Your task to perform on an android device: Show me productivity apps on the Play Store Image 0: 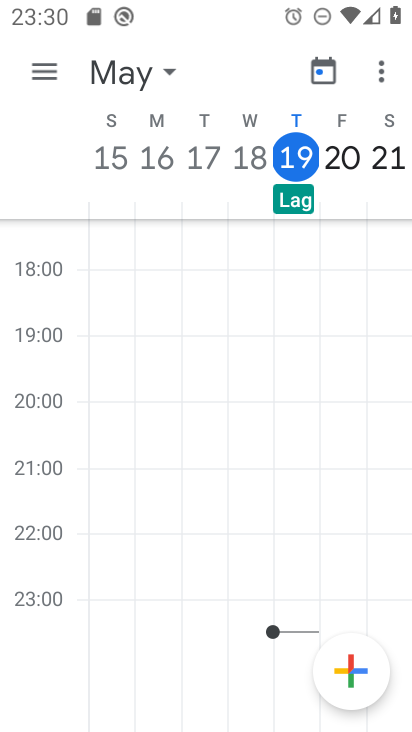
Step 0: press home button
Your task to perform on an android device: Show me productivity apps on the Play Store Image 1: 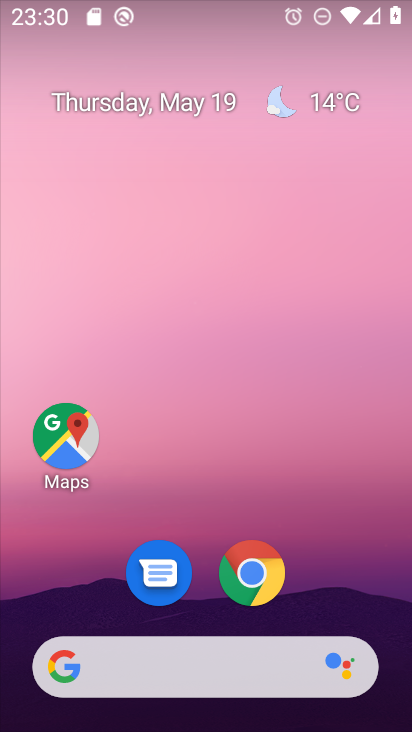
Step 1: drag from (328, 495) to (348, 87)
Your task to perform on an android device: Show me productivity apps on the Play Store Image 2: 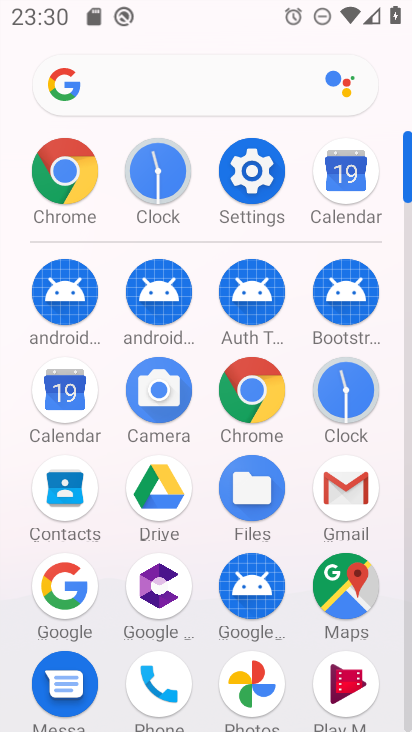
Step 2: drag from (301, 607) to (367, 193)
Your task to perform on an android device: Show me productivity apps on the Play Store Image 3: 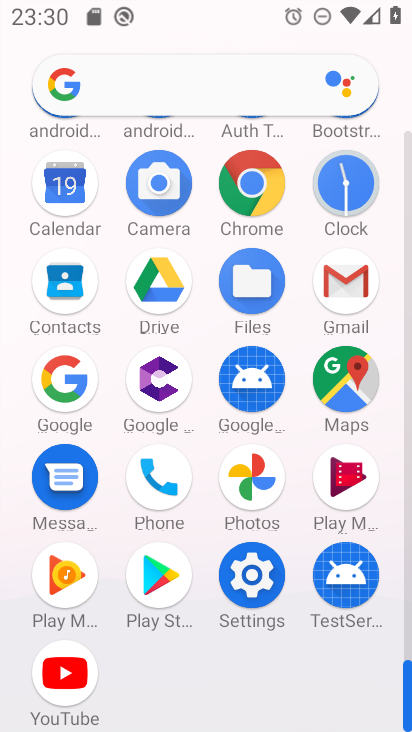
Step 3: click (171, 560)
Your task to perform on an android device: Show me productivity apps on the Play Store Image 4: 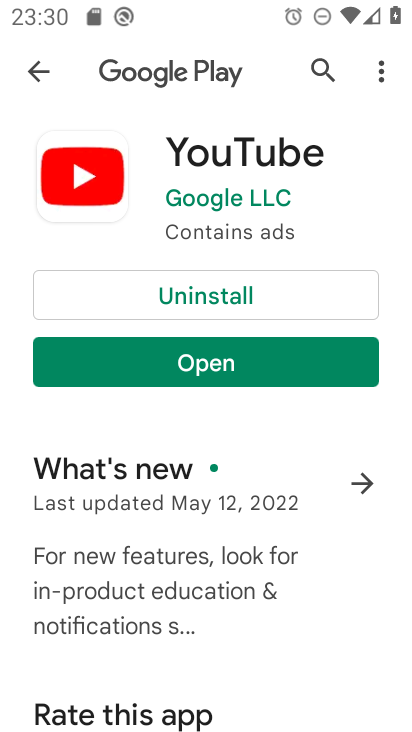
Step 4: click (49, 73)
Your task to perform on an android device: Show me productivity apps on the Play Store Image 5: 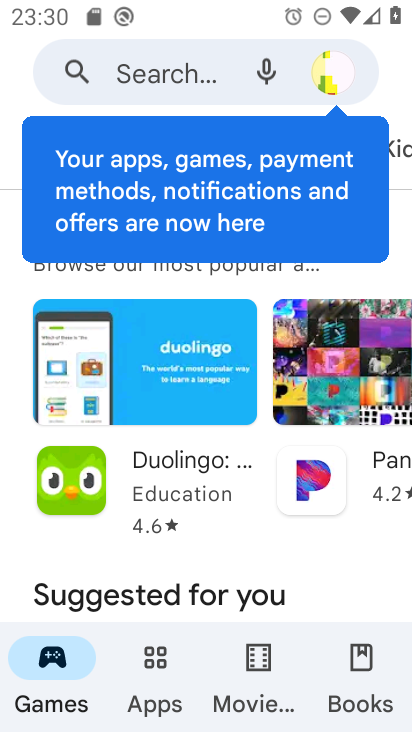
Step 5: drag from (220, 532) to (340, 142)
Your task to perform on an android device: Show me productivity apps on the Play Store Image 6: 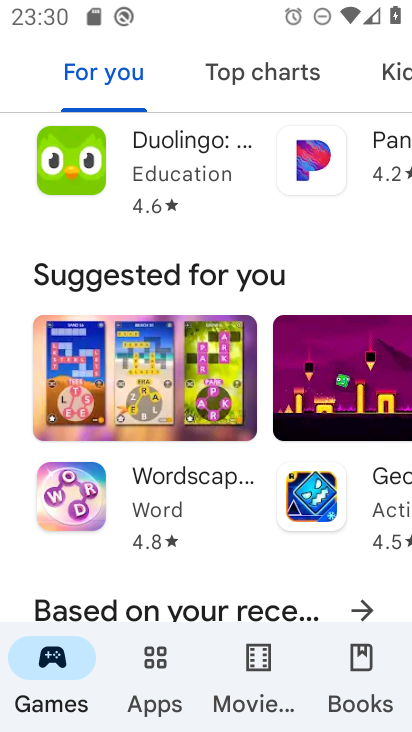
Step 6: drag from (222, 529) to (298, 126)
Your task to perform on an android device: Show me productivity apps on the Play Store Image 7: 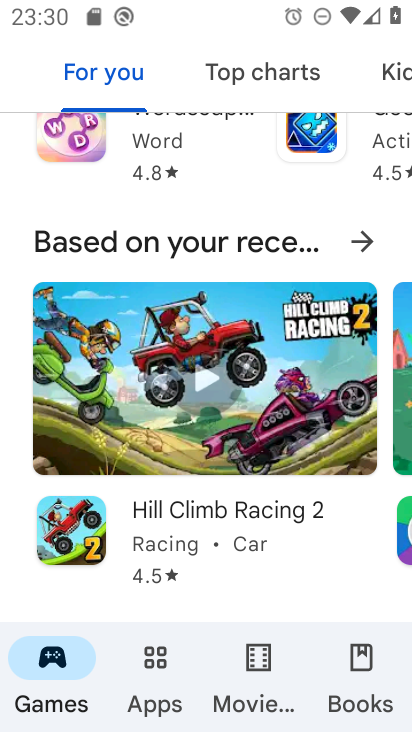
Step 7: drag from (230, 573) to (326, 163)
Your task to perform on an android device: Show me productivity apps on the Play Store Image 8: 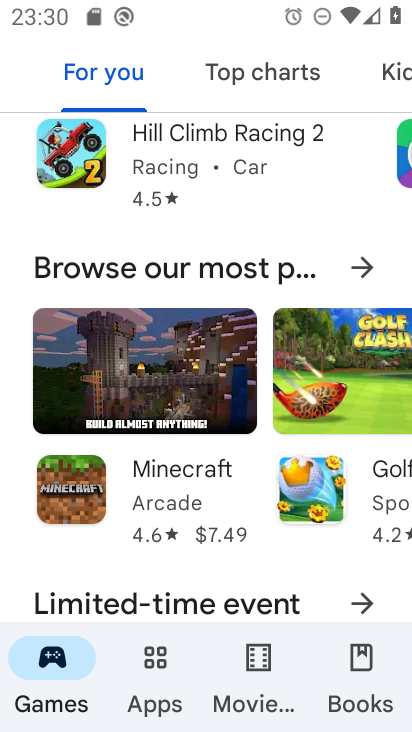
Step 8: drag from (197, 548) to (320, 133)
Your task to perform on an android device: Show me productivity apps on the Play Store Image 9: 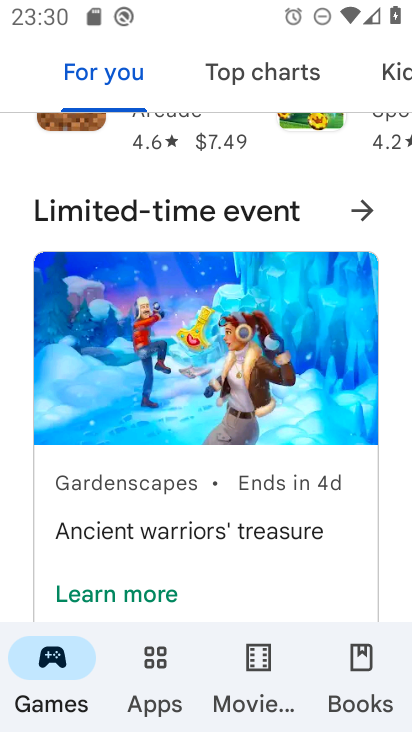
Step 9: drag from (209, 584) to (308, 161)
Your task to perform on an android device: Show me productivity apps on the Play Store Image 10: 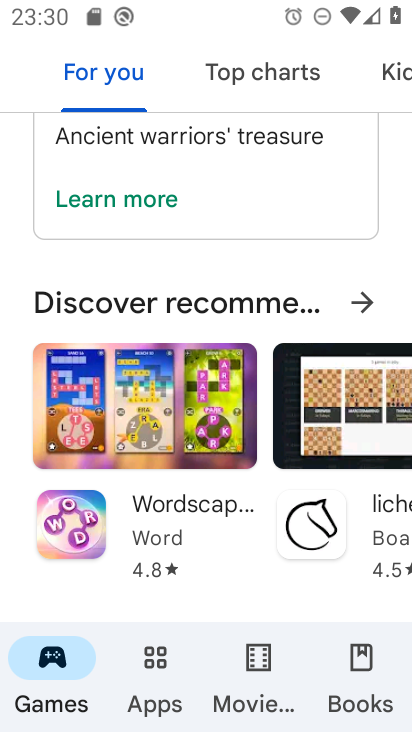
Step 10: drag from (224, 530) to (367, 153)
Your task to perform on an android device: Show me productivity apps on the Play Store Image 11: 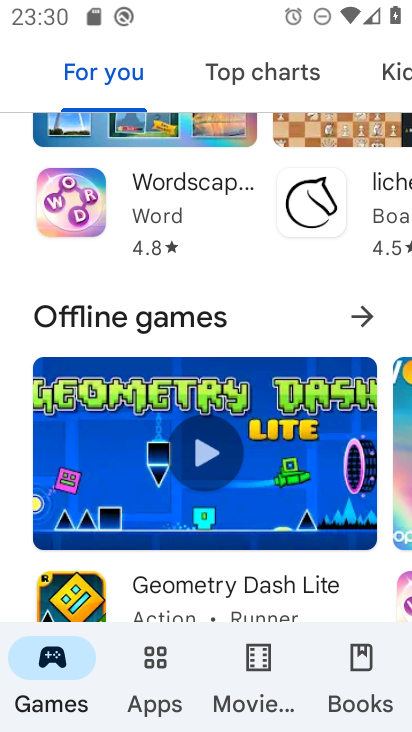
Step 11: drag from (209, 580) to (328, 194)
Your task to perform on an android device: Show me productivity apps on the Play Store Image 12: 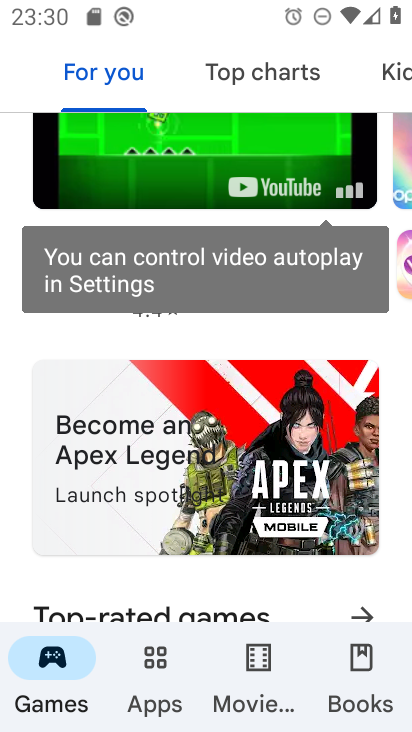
Step 12: drag from (217, 583) to (356, 178)
Your task to perform on an android device: Show me productivity apps on the Play Store Image 13: 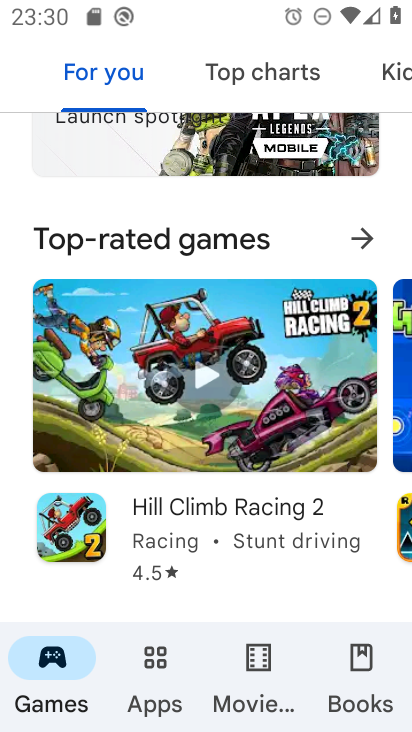
Step 13: drag from (225, 543) to (357, 163)
Your task to perform on an android device: Show me productivity apps on the Play Store Image 14: 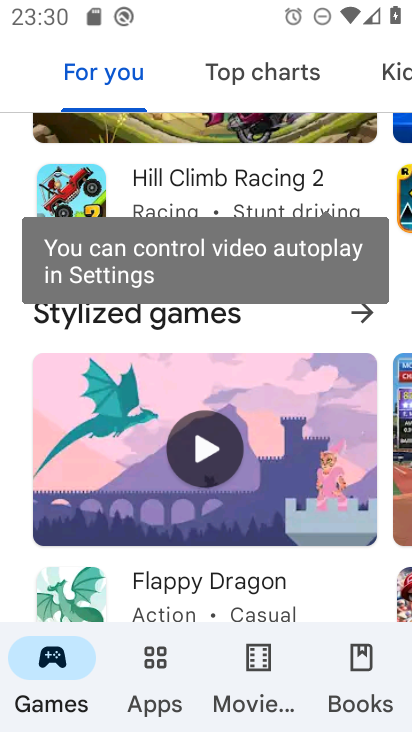
Step 14: drag from (219, 594) to (329, 283)
Your task to perform on an android device: Show me productivity apps on the Play Store Image 15: 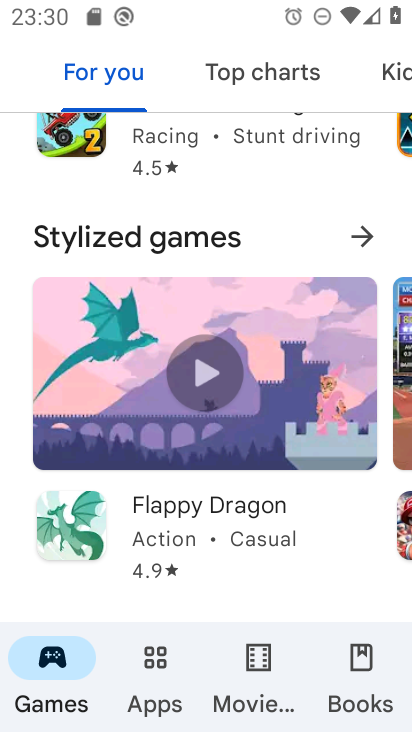
Step 15: click (340, 211)
Your task to perform on an android device: Show me productivity apps on the Play Store Image 16: 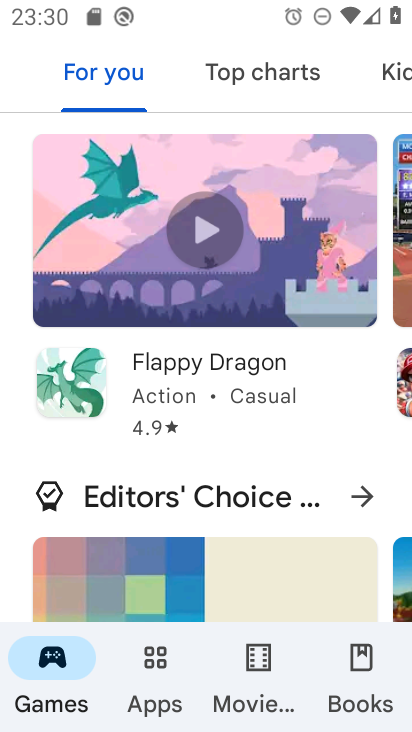
Step 16: drag from (252, 546) to (371, 175)
Your task to perform on an android device: Show me productivity apps on the Play Store Image 17: 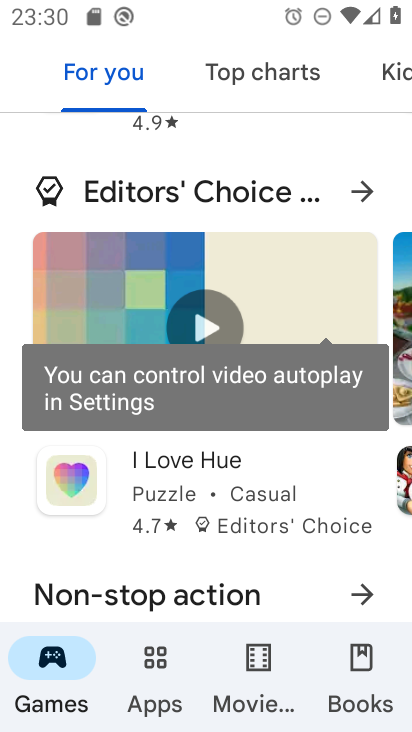
Step 17: drag from (257, 529) to (370, 197)
Your task to perform on an android device: Show me productivity apps on the Play Store Image 18: 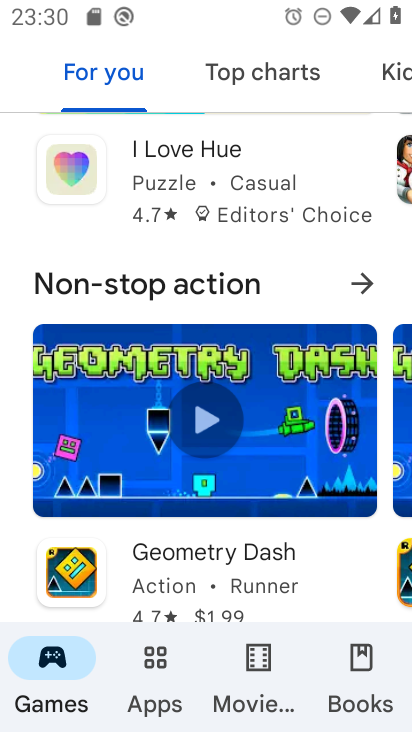
Step 18: drag from (284, 515) to (376, 117)
Your task to perform on an android device: Show me productivity apps on the Play Store Image 19: 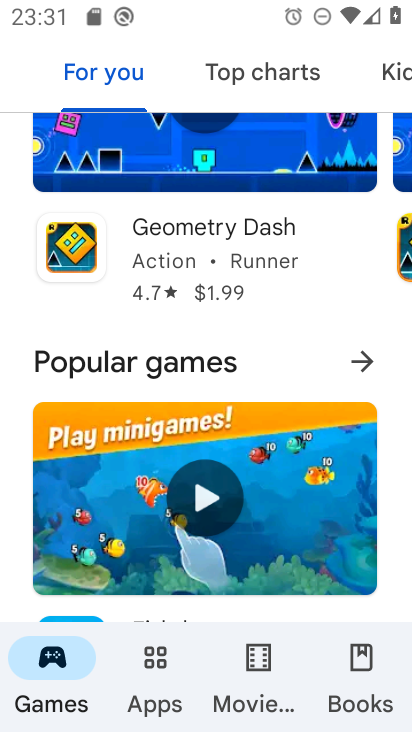
Step 19: drag from (233, 570) to (353, 121)
Your task to perform on an android device: Show me productivity apps on the Play Store Image 20: 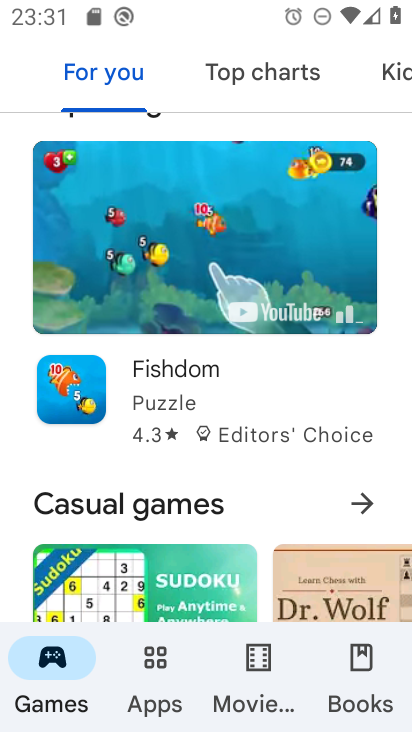
Step 20: drag from (237, 509) to (396, 200)
Your task to perform on an android device: Show me productivity apps on the Play Store Image 21: 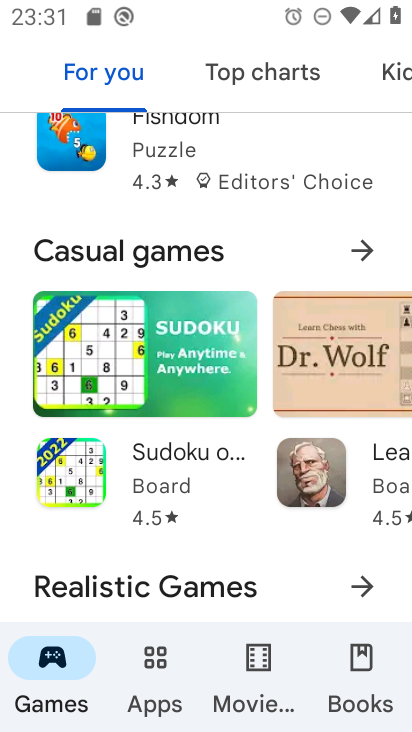
Step 21: drag from (248, 546) to (412, 268)
Your task to perform on an android device: Show me productivity apps on the Play Store Image 22: 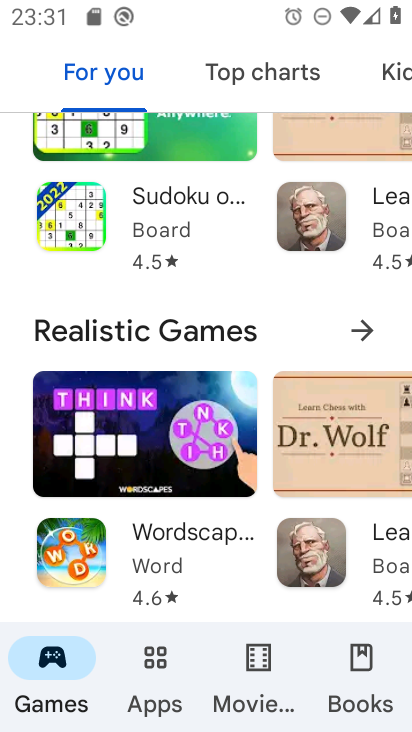
Step 22: drag from (243, 588) to (388, 155)
Your task to perform on an android device: Show me productivity apps on the Play Store Image 23: 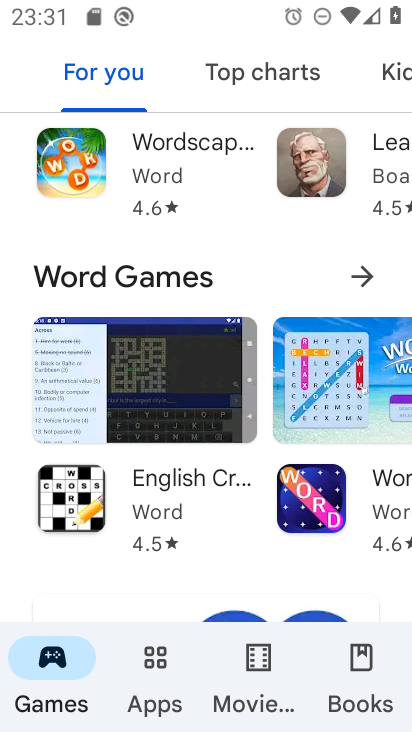
Step 23: drag from (213, 552) to (354, 262)
Your task to perform on an android device: Show me productivity apps on the Play Store Image 24: 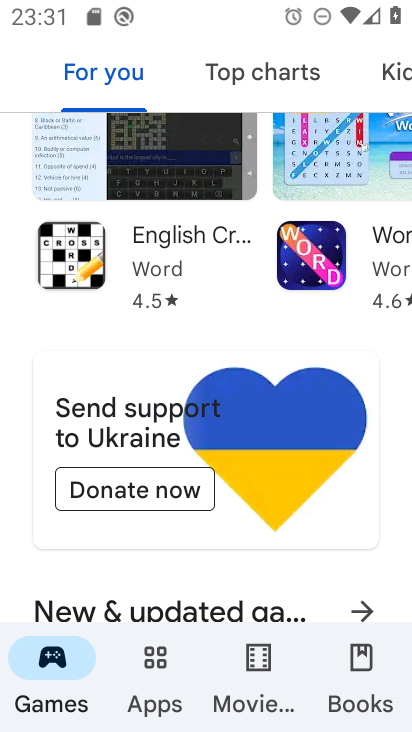
Step 24: drag from (227, 602) to (412, 298)
Your task to perform on an android device: Show me productivity apps on the Play Store Image 25: 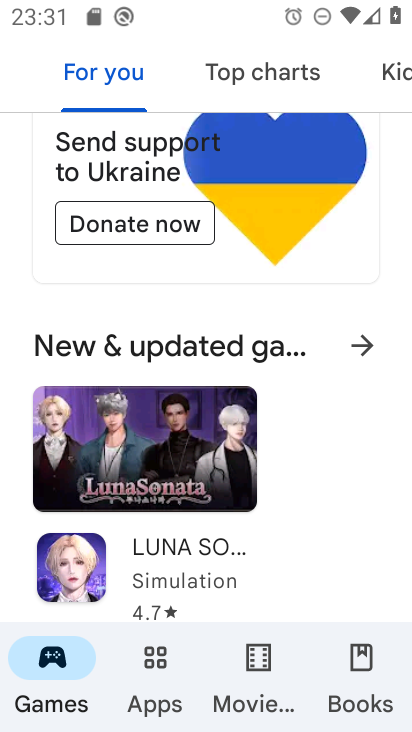
Step 25: drag from (275, 558) to (400, 270)
Your task to perform on an android device: Show me productivity apps on the Play Store Image 26: 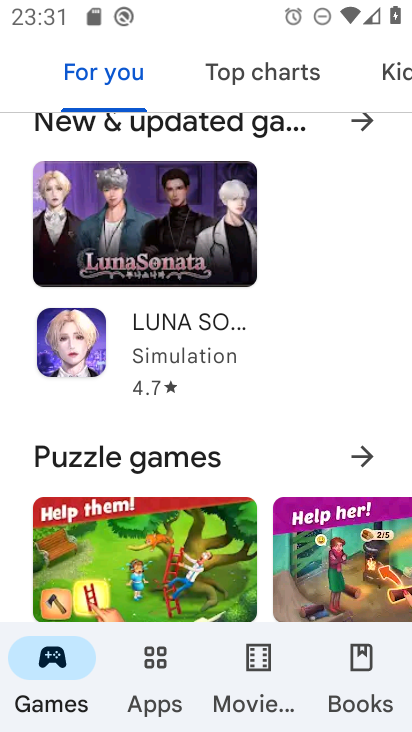
Step 26: click (403, 251)
Your task to perform on an android device: Show me productivity apps on the Play Store Image 27: 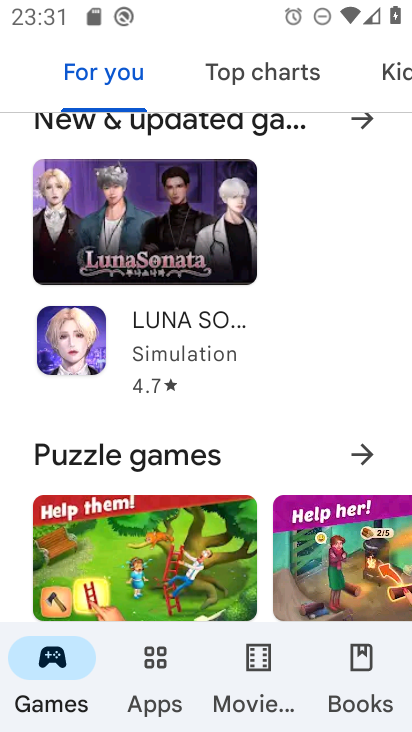
Step 27: drag from (215, 575) to (409, 204)
Your task to perform on an android device: Show me productivity apps on the Play Store Image 28: 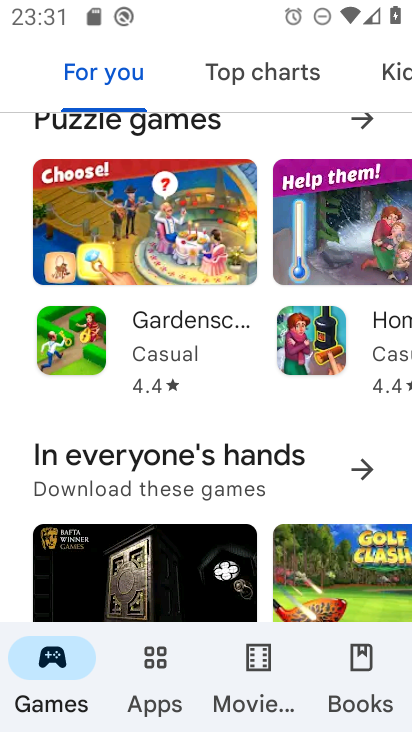
Step 28: drag from (214, 531) to (388, 227)
Your task to perform on an android device: Show me productivity apps on the Play Store Image 29: 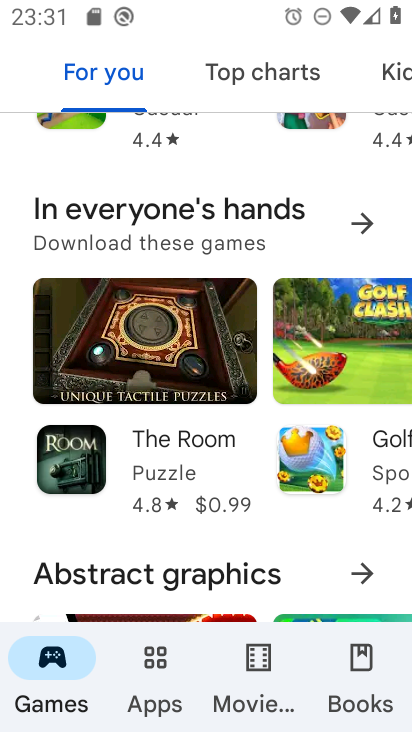
Step 29: drag from (181, 594) to (379, 248)
Your task to perform on an android device: Show me productivity apps on the Play Store Image 30: 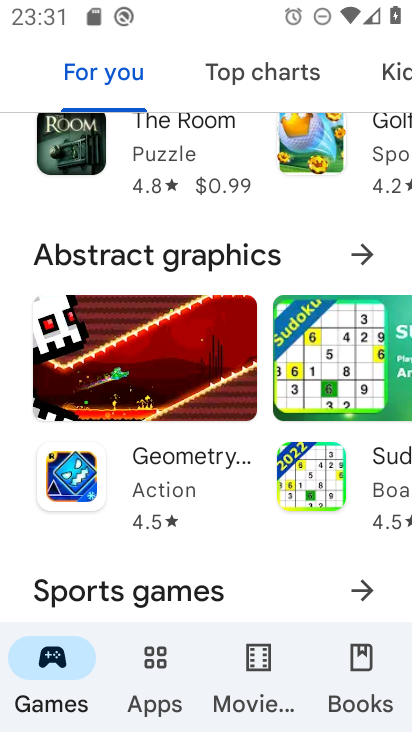
Step 30: drag from (172, 568) to (354, 326)
Your task to perform on an android device: Show me productivity apps on the Play Store Image 31: 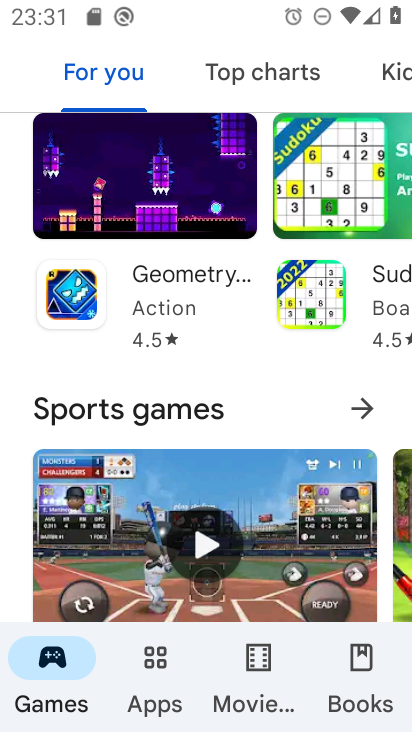
Step 31: drag from (218, 616) to (387, 351)
Your task to perform on an android device: Show me productivity apps on the Play Store Image 32: 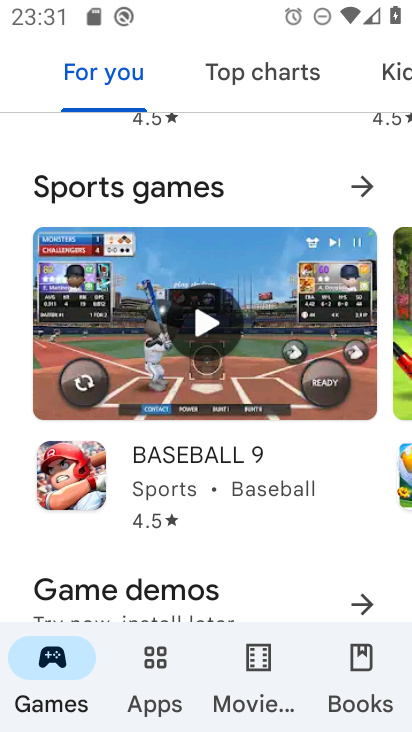
Step 32: drag from (192, 553) to (375, 254)
Your task to perform on an android device: Show me productivity apps on the Play Store Image 33: 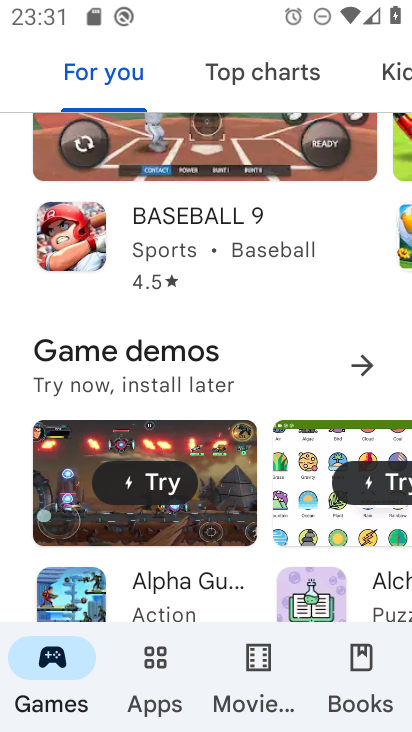
Step 33: drag from (291, 417) to (350, 283)
Your task to perform on an android device: Show me productivity apps on the Play Store Image 34: 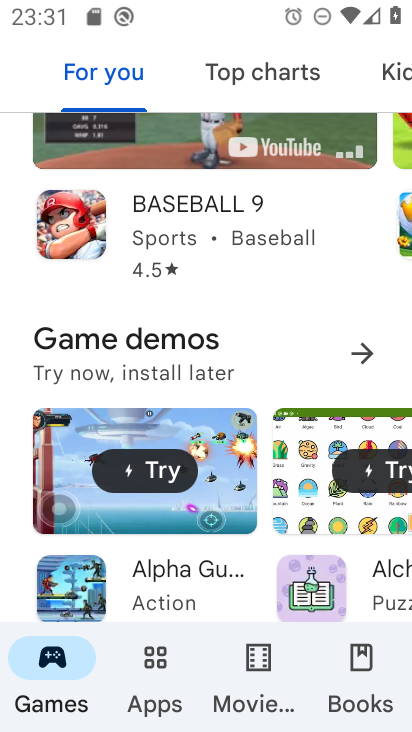
Step 34: drag from (259, 517) to (409, 174)
Your task to perform on an android device: Show me productivity apps on the Play Store Image 35: 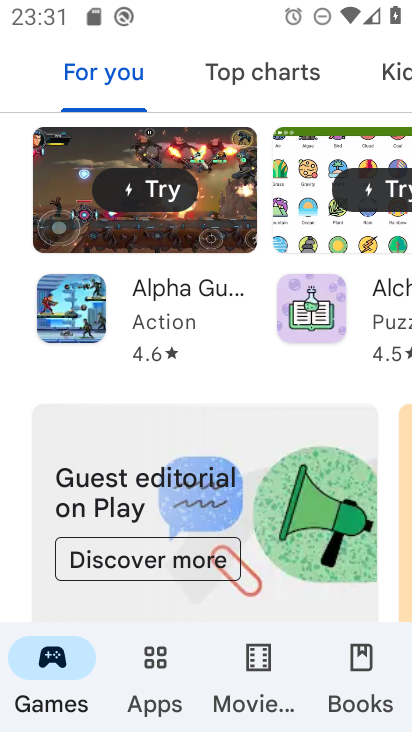
Step 35: drag from (166, 512) to (323, 254)
Your task to perform on an android device: Show me productivity apps on the Play Store Image 36: 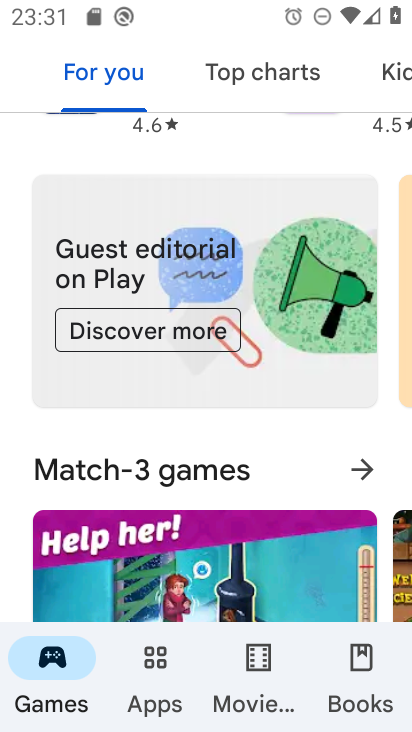
Step 36: drag from (195, 504) to (371, 153)
Your task to perform on an android device: Show me productivity apps on the Play Store Image 37: 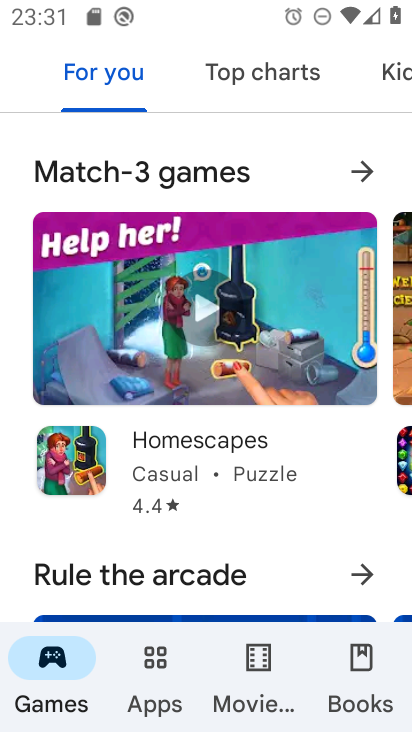
Step 37: drag from (229, 520) to (379, 182)
Your task to perform on an android device: Show me productivity apps on the Play Store Image 38: 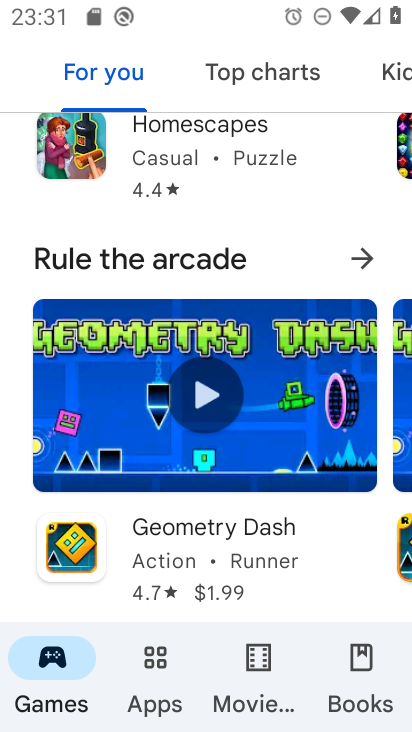
Step 38: drag from (163, 513) to (397, 189)
Your task to perform on an android device: Show me productivity apps on the Play Store Image 39: 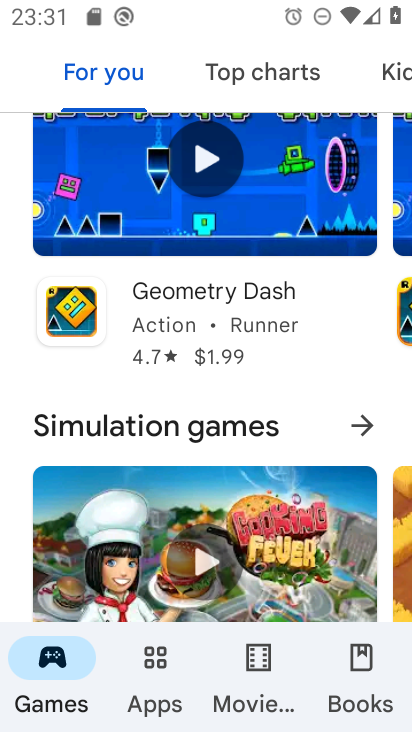
Step 39: drag from (195, 497) to (382, 186)
Your task to perform on an android device: Show me productivity apps on the Play Store Image 40: 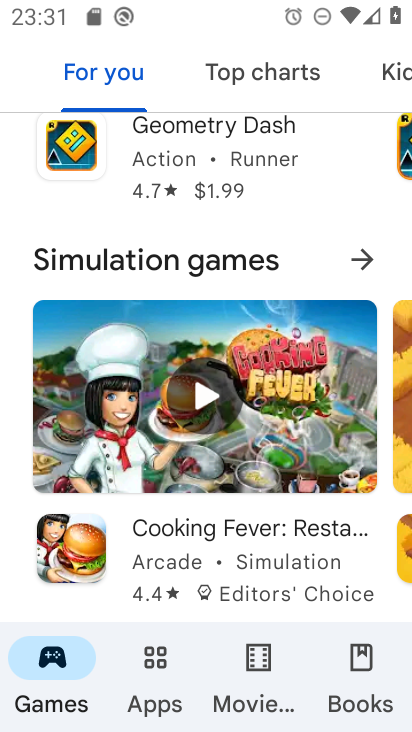
Step 40: drag from (165, 553) to (372, 226)
Your task to perform on an android device: Show me productivity apps on the Play Store Image 41: 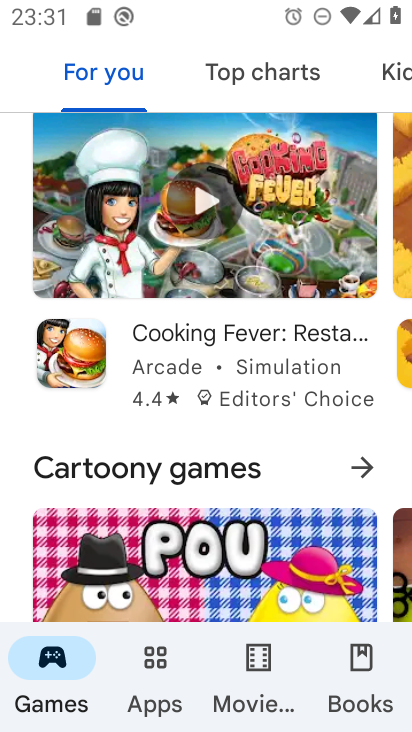
Step 41: drag from (161, 594) to (323, 181)
Your task to perform on an android device: Show me productivity apps on the Play Store Image 42: 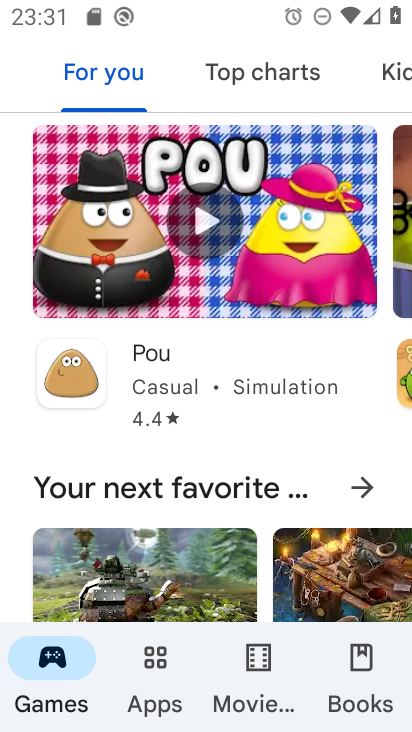
Step 42: drag from (148, 548) to (303, 172)
Your task to perform on an android device: Show me productivity apps on the Play Store Image 43: 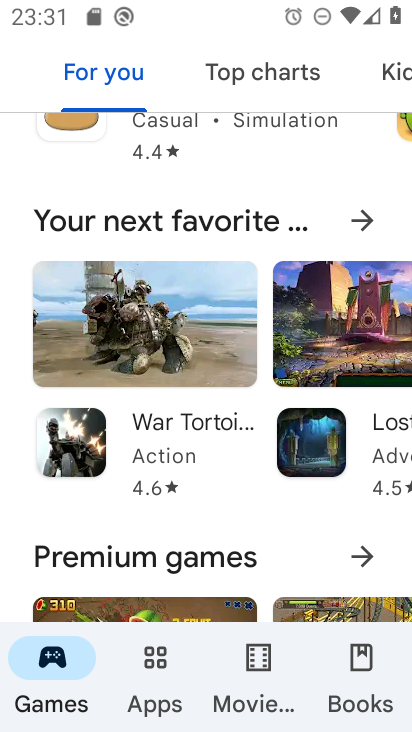
Step 43: drag from (166, 512) to (283, 148)
Your task to perform on an android device: Show me productivity apps on the Play Store Image 44: 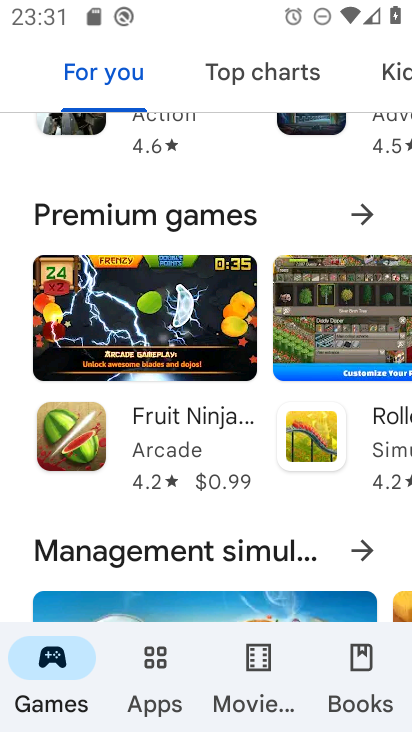
Step 44: drag from (145, 504) to (314, 140)
Your task to perform on an android device: Show me productivity apps on the Play Store Image 45: 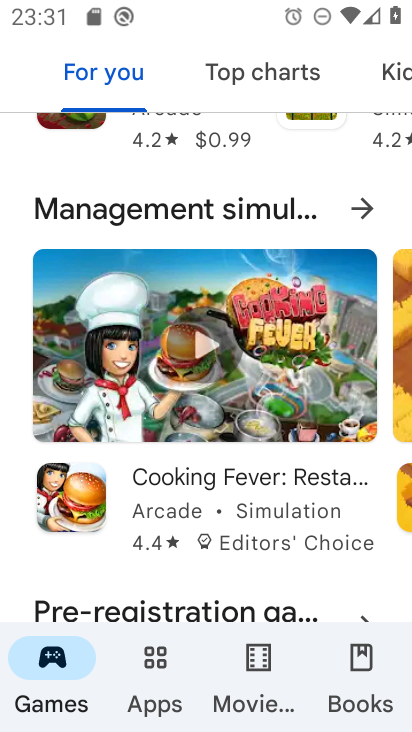
Step 45: drag from (152, 579) to (346, 145)
Your task to perform on an android device: Show me productivity apps on the Play Store Image 46: 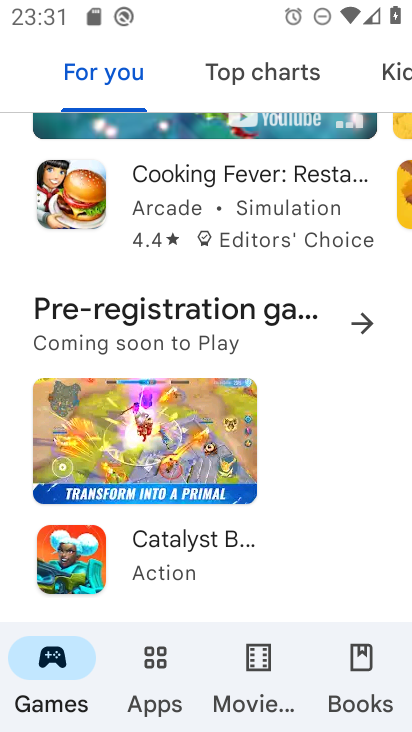
Step 46: drag from (184, 545) to (342, 161)
Your task to perform on an android device: Show me productivity apps on the Play Store Image 47: 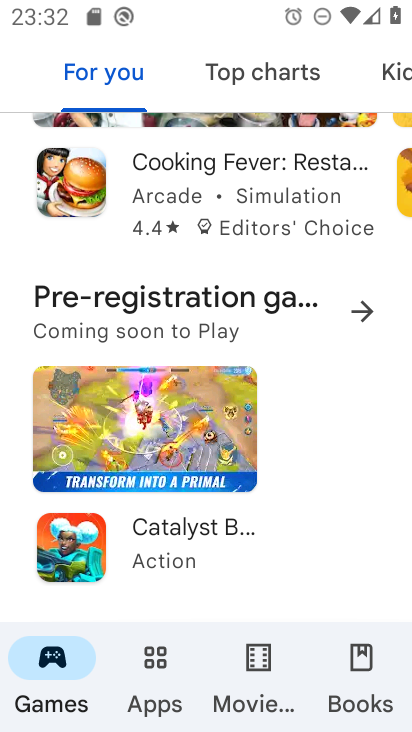
Step 47: drag from (152, 598) to (319, 309)
Your task to perform on an android device: Show me productivity apps on the Play Store Image 48: 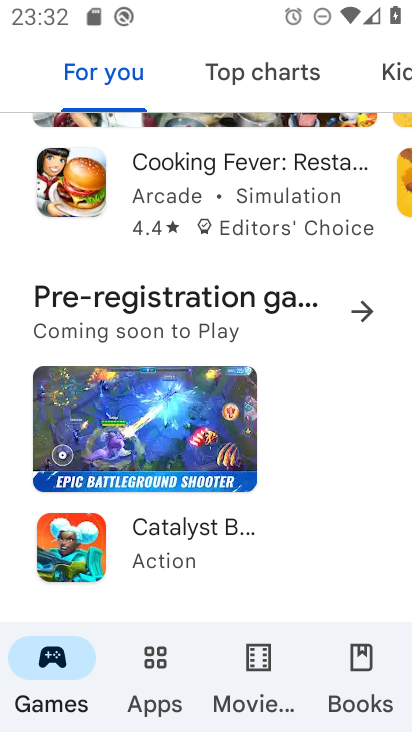
Step 48: drag from (268, 275) to (281, 488)
Your task to perform on an android device: Show me productivity apps on the Play Store Image 49: 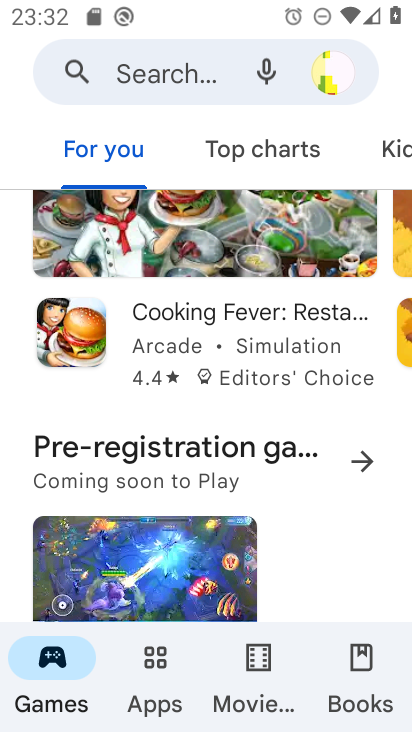
Step 49: click (151, 677)
Your task to perform on an android device: Show me productivity apps on the Play Store Image 50: 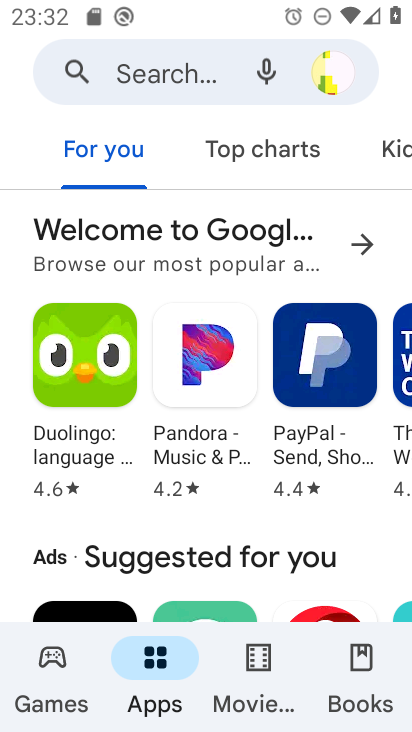
Step 50: drag from (229, 564) to (344, 111)
Your task to perform on an android device: Show me productivity apps on the Play Store Image 51: 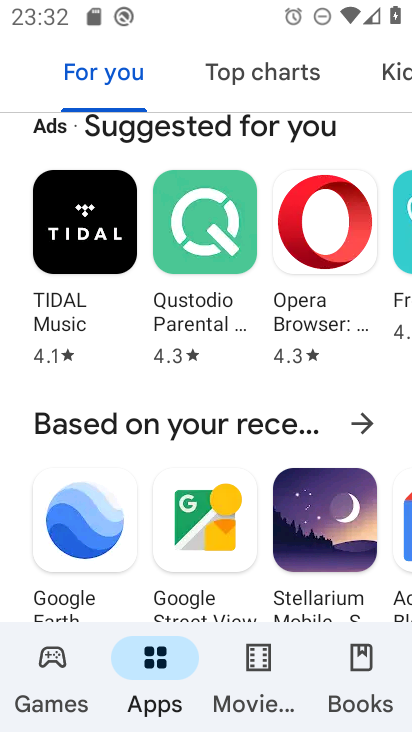
Step 51: drag from (243, 520) to (324, 109)
Your task to perform on an android device: Show me productivity apps on the Play Store Image 52: 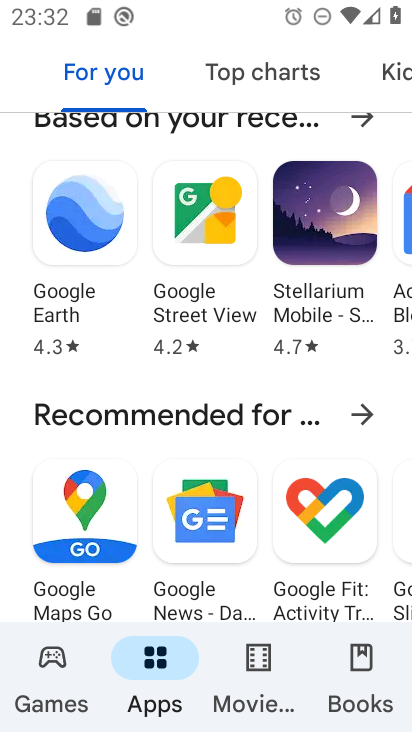
Step 52: drag from (245, 449) to (319, 198)
Your task to perform on an android device: Show me productivity apps on the Play Store Image 53: 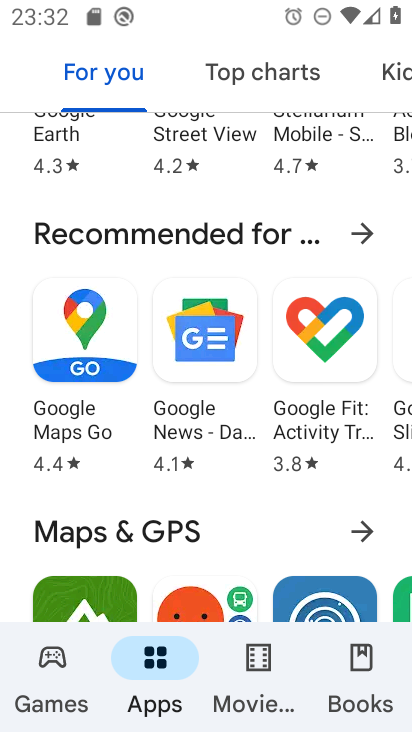
Step 53: drag from (205, 515) to (340, 145)
Your task to perform on an android device: Show me productivity apps on the Play Store Image 54: 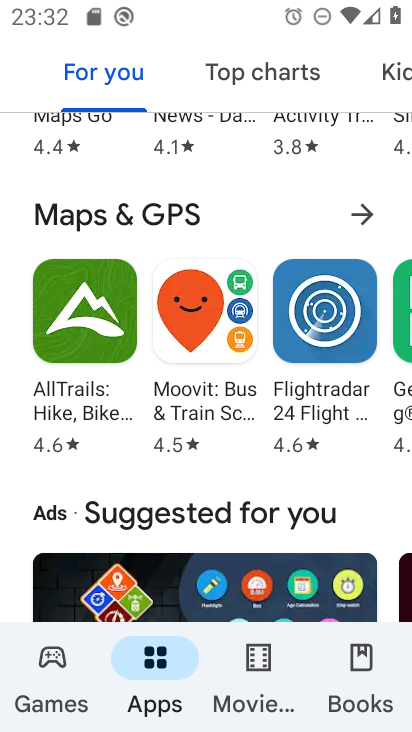
Step 54: drag from (235, 475) to (345, 137)
Your task to perform on an android device: Show me productivity apps on the Play Store Image 55: 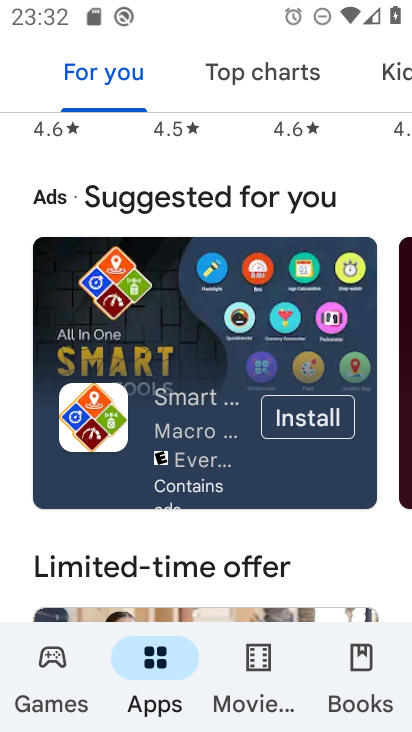
Step 55: drag from (212, 569) to (335, 172)
Your task to perform on an android device: Show me productivity apps on the Play Store Image 56: 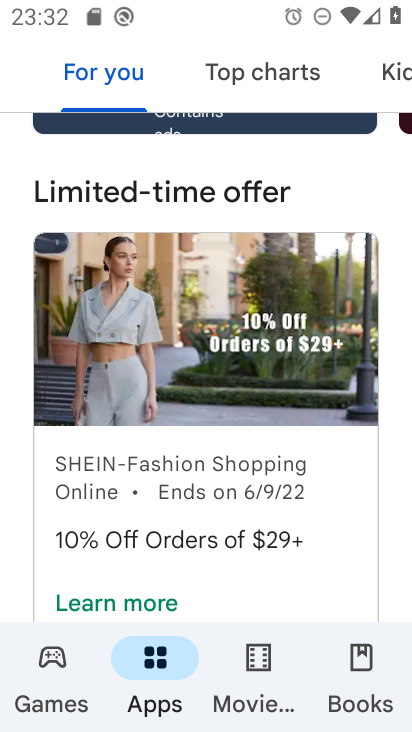
Step 56: drag from (206, 509) to (342, 168)
Your task to perform on an android device: Show me productivity apps on the Play Store Image 57: 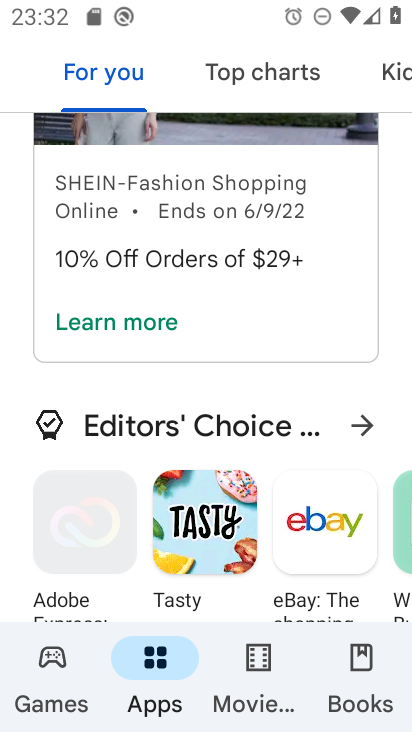
Step 57: click (342, 163)
Your task to perform on an android device: Show me productivity apps on the Play Store Image 58: 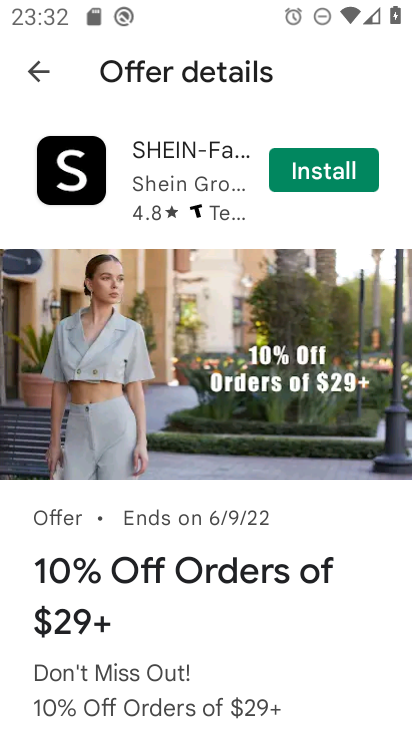
Step 58: drag from (192, 487) to (323, 189)
Your task to perform on an android device: Show me productivity apps on the Play Store Image 59: 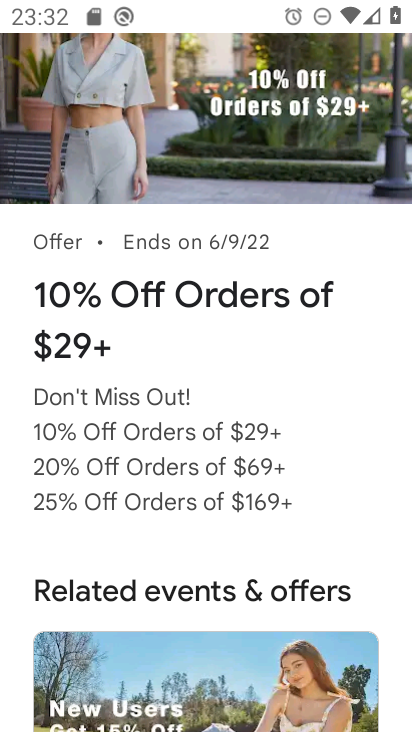
Step 59: drag from (70, 137) to (103, 599)
Your task to perform on an android device: Show me productivity apps on the Play Store Image 60: 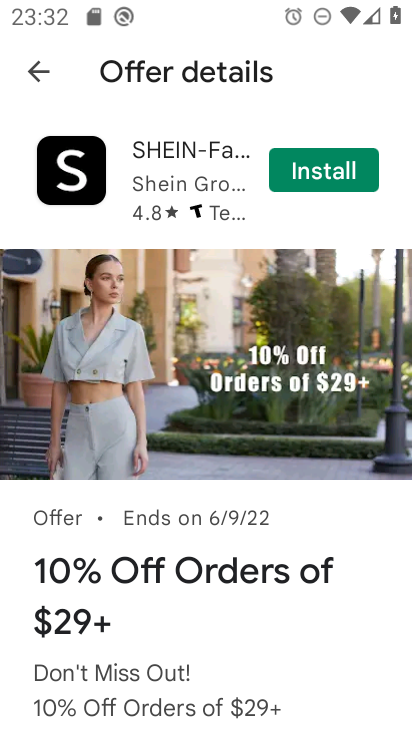
Step 60: click (60, 83)
Your task to perform on an android device: Show me productivity apps on the Play Store Image 61: 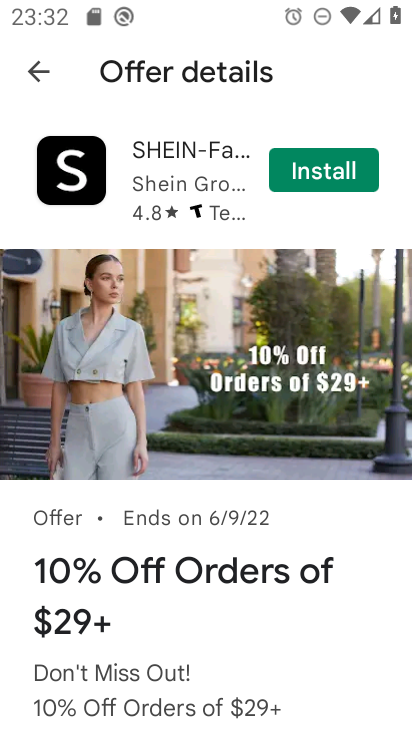
Step 61: click (40, 72)
Your task to perform on an android device: Show me productivity apps on the Play Store Image 62: 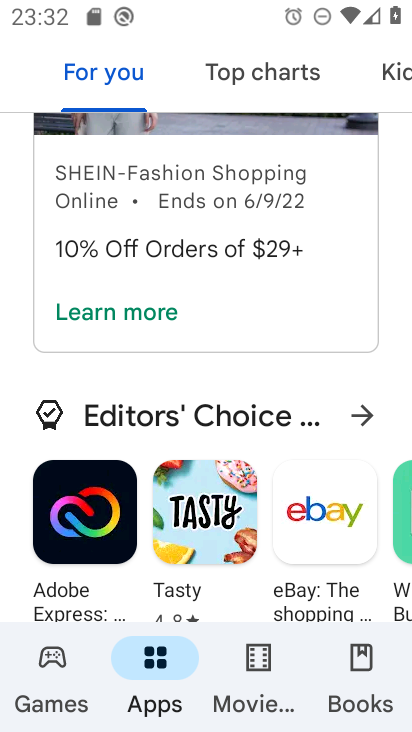
Step 62: task complete